Your task to perform on an android device: What's the news in Guyana? Image 0: 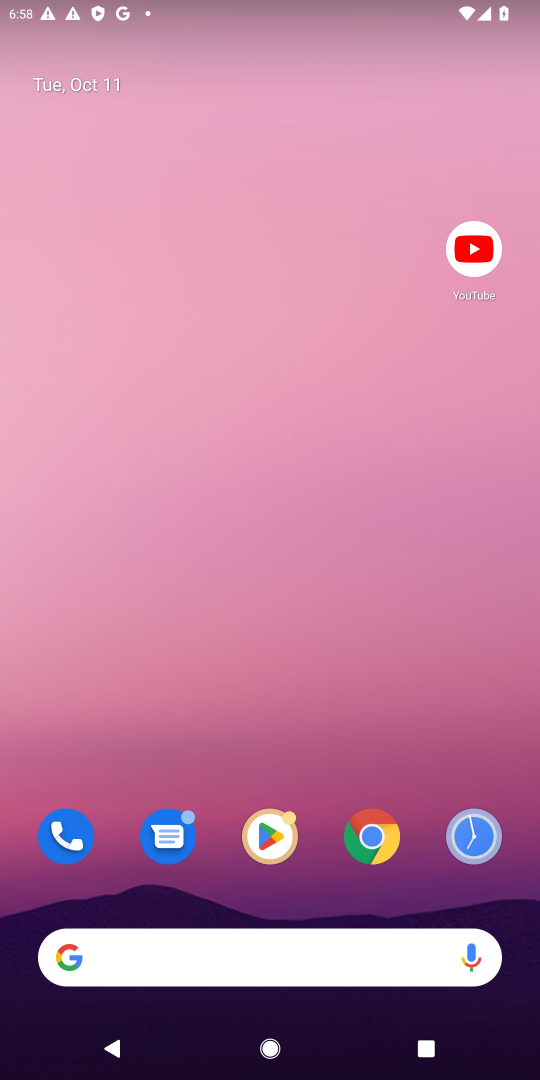
Step 0: click (372, 829)
Your task to perform on an android device: What's the news in Guyana? Image 1: 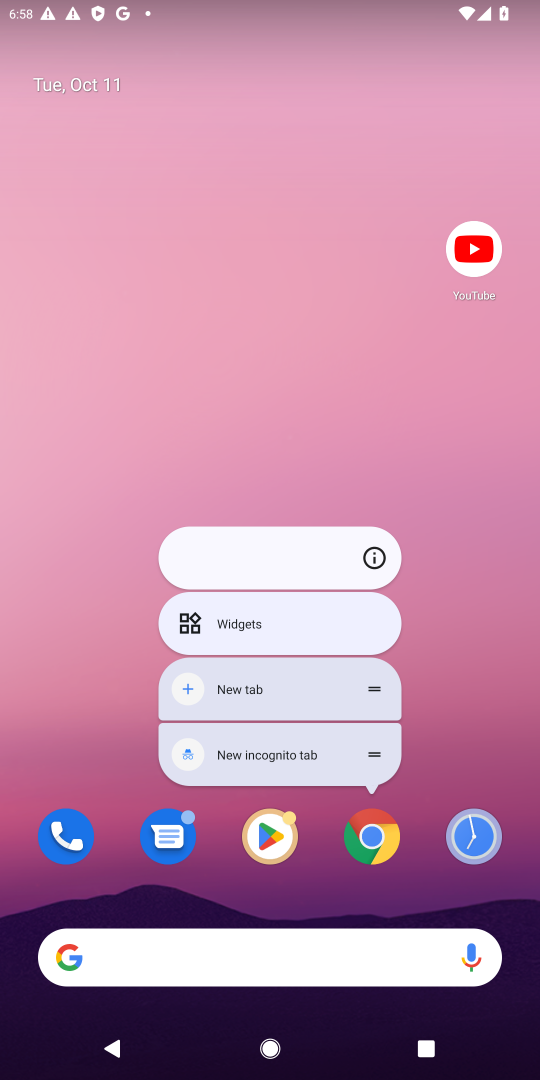
Step 1: click (374, 838)
Your task to perform on an android device: What's the news in Guyana? Image 2: 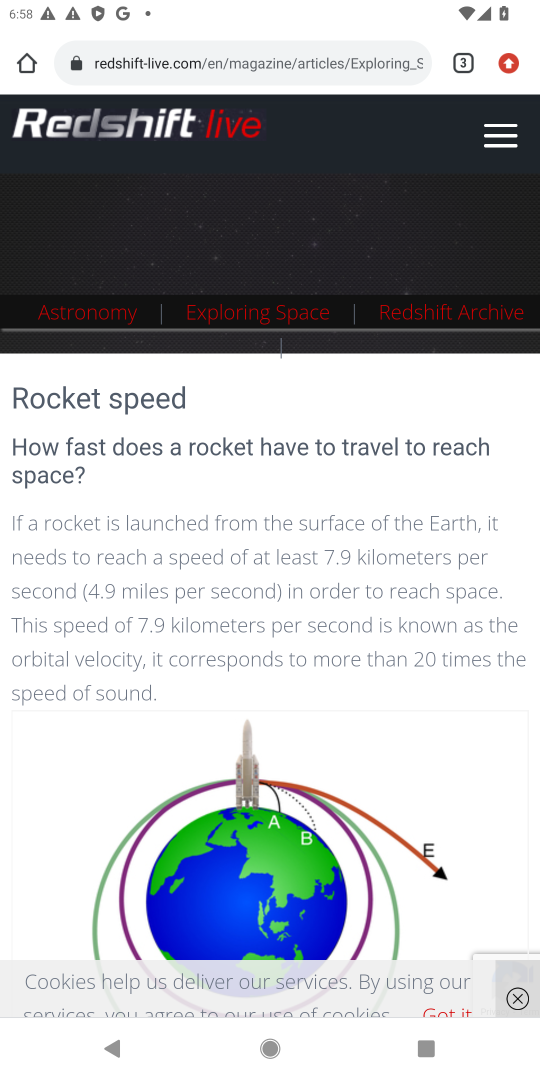
Step 2: click (357, 51)
Your task to perform on an android device: What's the news in Guyana? Image 3: 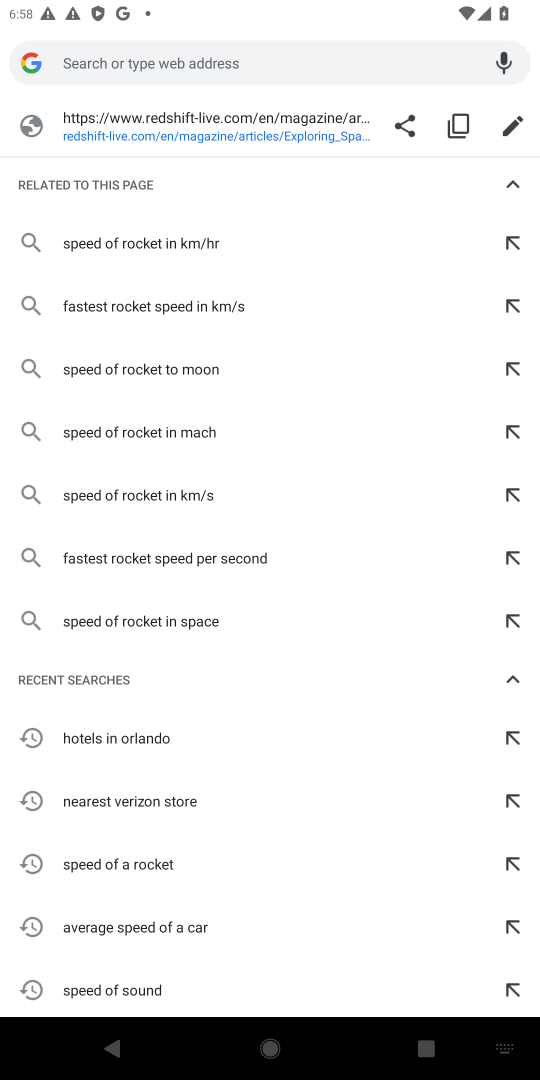
Step 3: type "news in Guyana"
Your task to perform on an android device: What's the news in Guyana? Image 4: 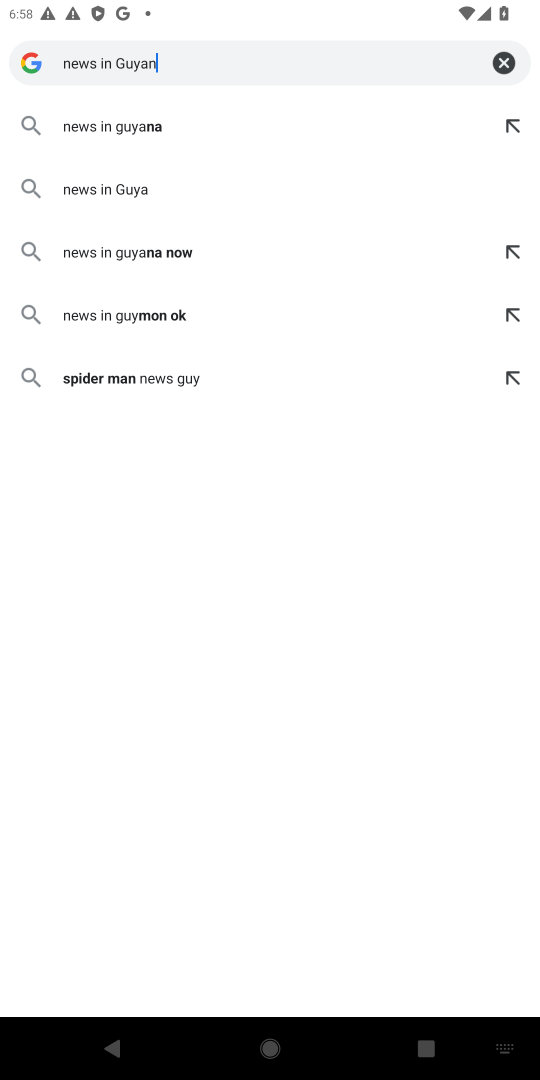
Step 4: press enter
Your task to perform on an android device: What's the news in Guyana? Image 5: 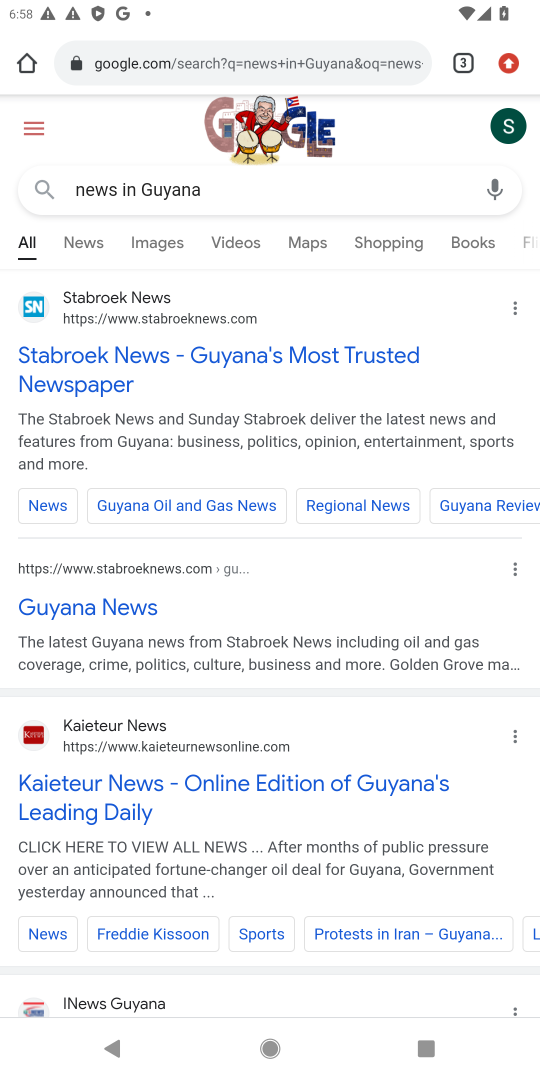
Step 5: click (82, 229)
Your task to perform on an android device: What's the news in Guyana? Image 6: 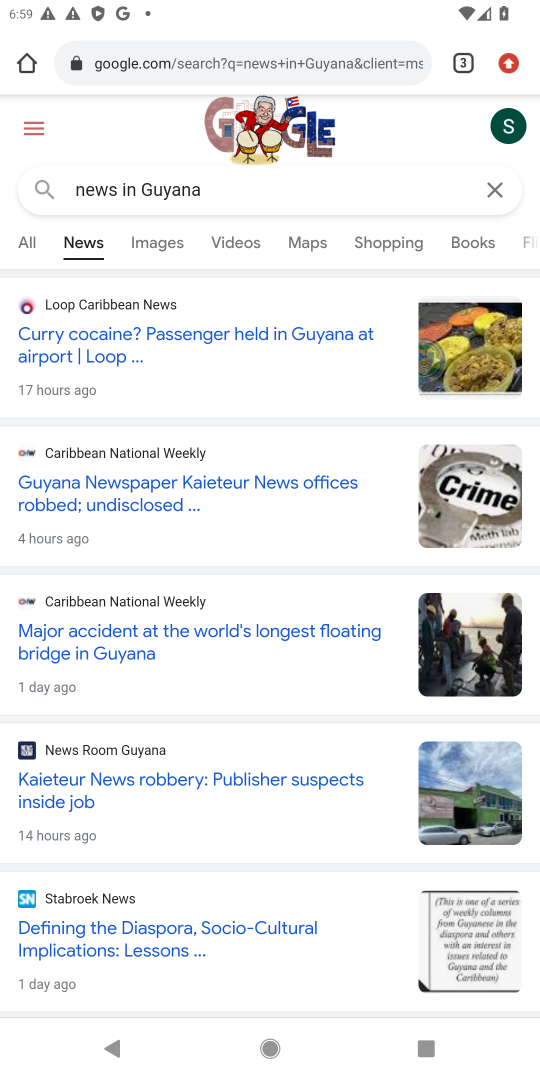
Step 6: task complete